Your task to perform on an android device: Open display settings Image 0: 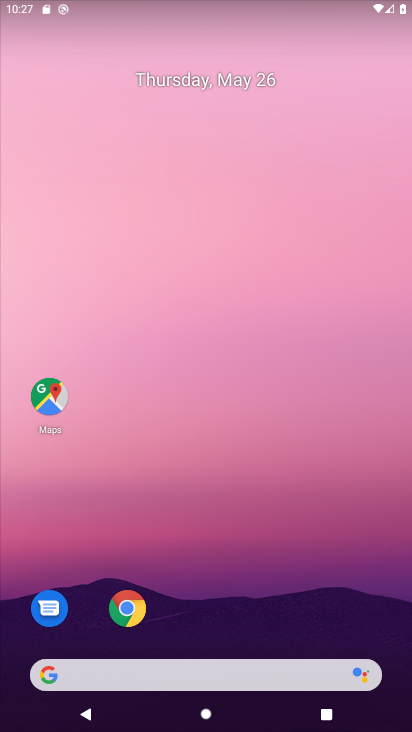
Step 0: click (266, 432)
Your task to perform on an android device: Open display settings Image 1: 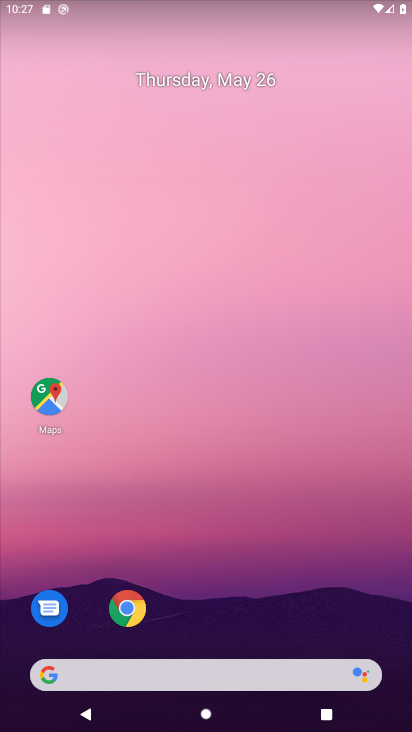
Step 1: drag from (400, 696) to (301, 134)
Your task to perform on an android device: Open display settings Image 2: 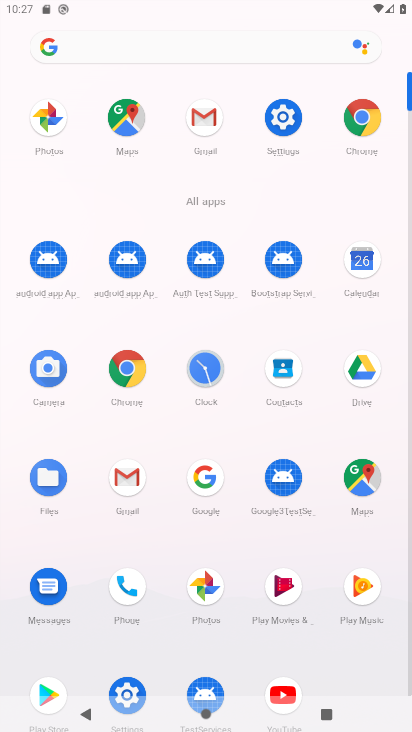
Step 2: click (272, 116)
Your task to perform on an android device: Open display settings Image 3: 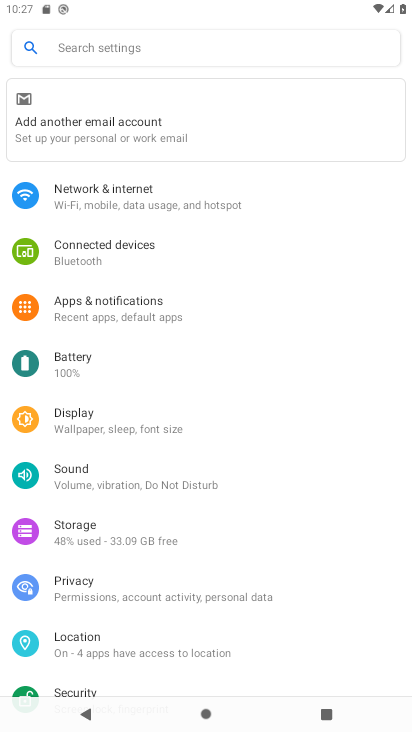
Step 3: click (79, 420)
Your task to perform on an android device: Open display settings Image 4: 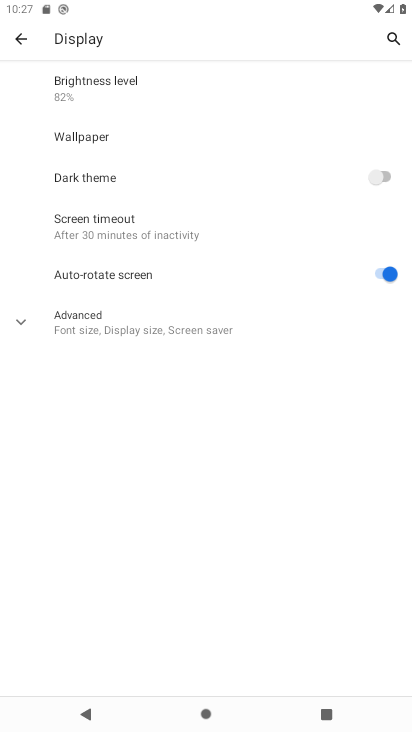
Step 4: task complete